Your task to perform on an android device: turn off notifications in google photos Image 0: 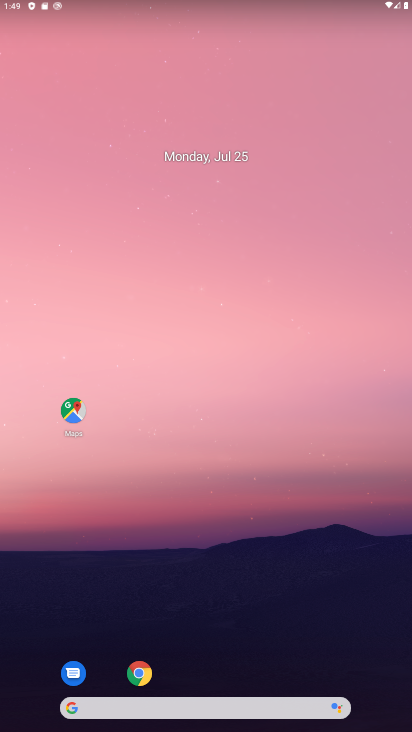
Step 0: drag from (194, 659) to (236, 98)
Your task to perform on an android device: turn off notifications in google photos Image 1: 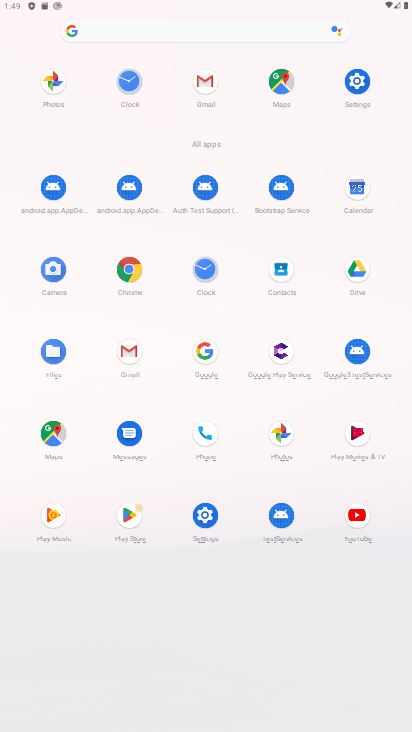
Step 1: click (270, 429)
Your task to perform on an android device: turn off notifications in google photos Image 2: 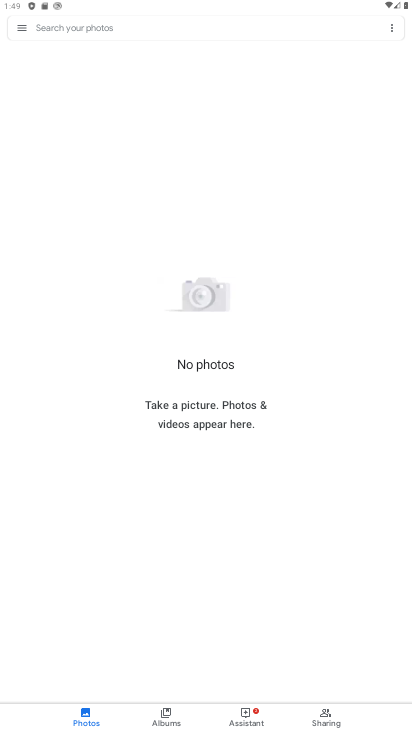
Step 2: click (23, 25)
Your task to perform on an android device: turn off notifications in google photos Image 3: 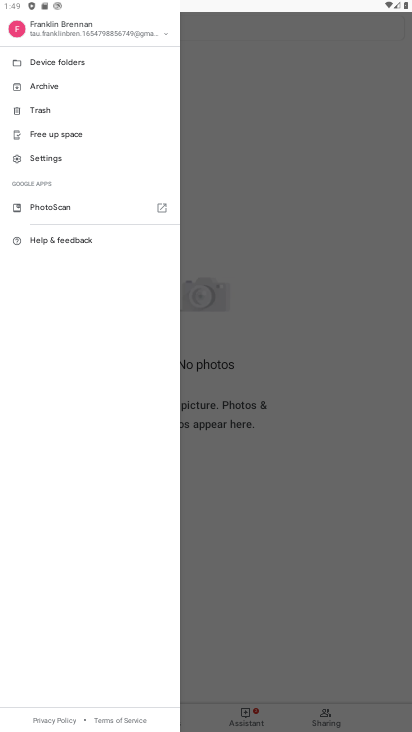
Step 3: click (78, 154)
Your task to perform on an android device: turn off notifications in google photos Image 4: 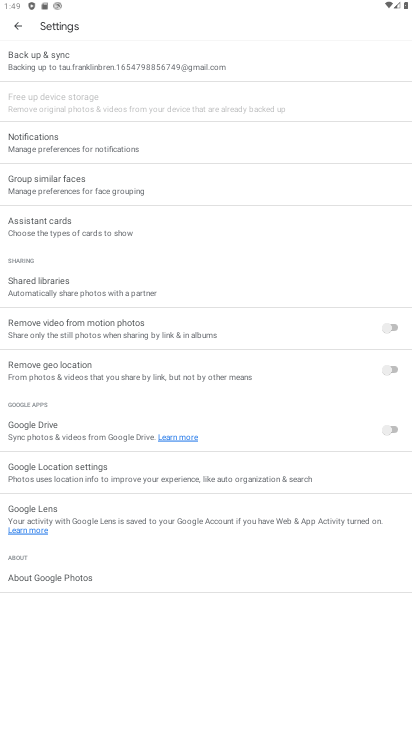
Step 4: click (78, 154)
Your task to perform on an android device: turn off notifications in google photos Image 5: 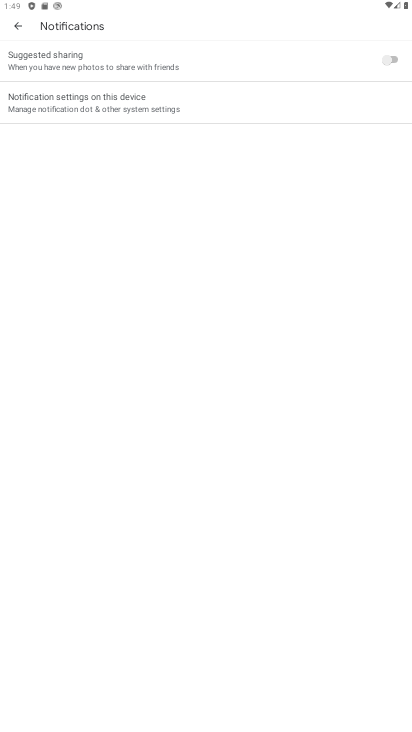
Step 5: click (219, 58)
Your task to perform on an android device: turn off notifications in google photos Image 6: 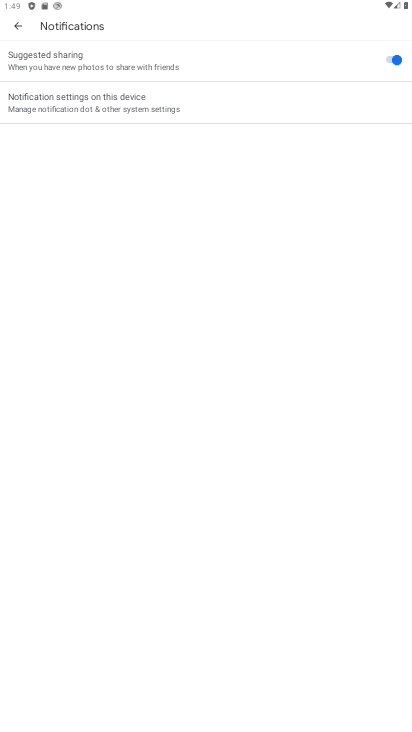
Step 6: click (212, 121)
Your task to perform on an android device: turn off notifications in google photos Image 7: 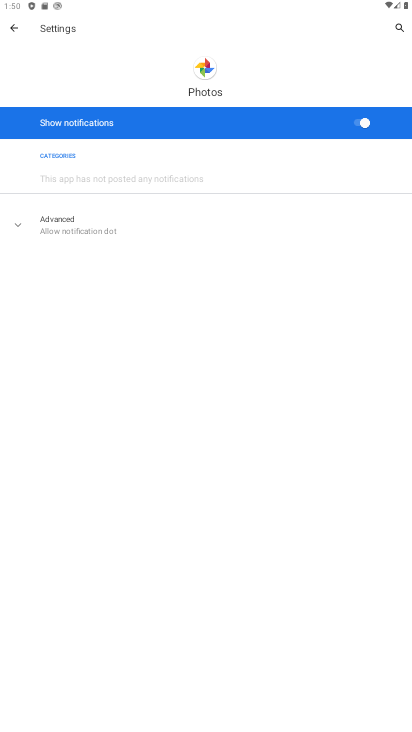
Step 7: click (360, 130)
Your task to perform on an android device: turn off notifications in google photos Image 8: 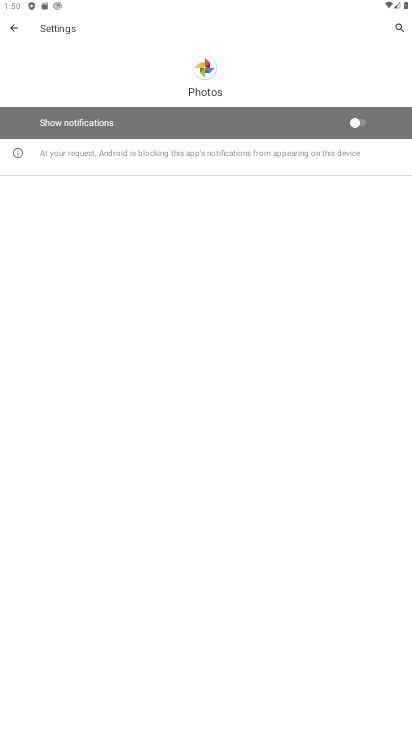
Step 8: task complete